Your task to perform on an android device: Open Wikipedia Image 0: 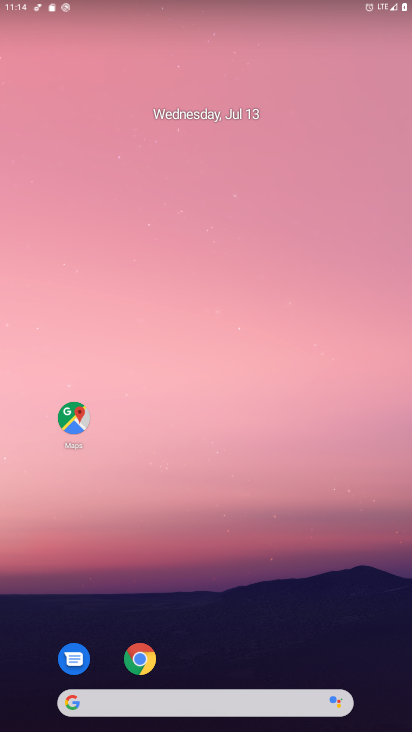
Step 0: drag from (221, 665) to (203, 70)
Your task to perform on an android device: Open Wikipedia Image 1: 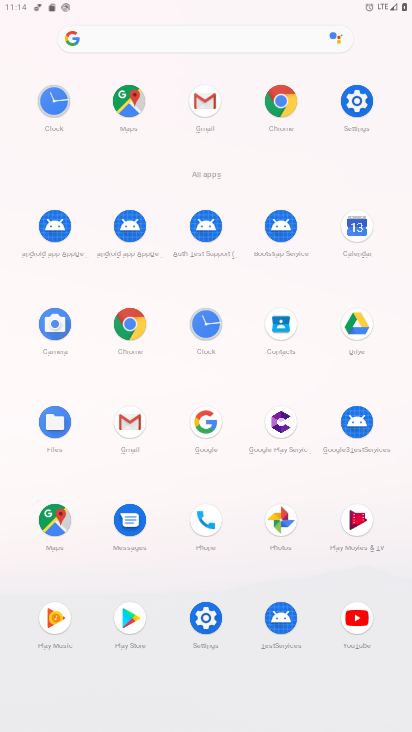
Step 1: click (278, 96)
Your task to perform on an android device: Open Wikipedia Image 2: 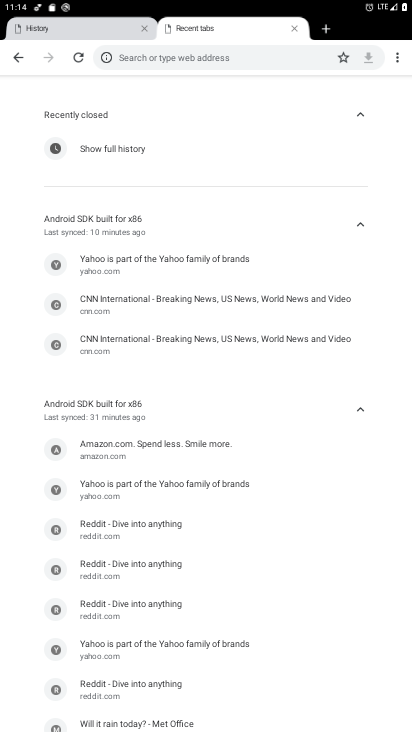
Step 2: click (327, 28)
Your task to perform on an android device: Open Wikipedia Image 3: 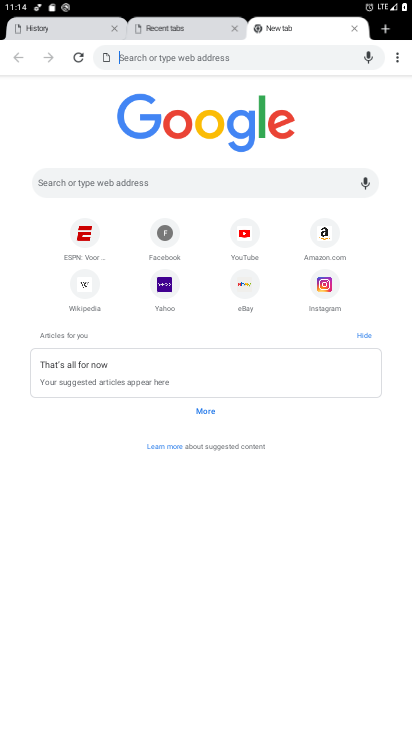
Step 3: click (79, 278)
Your task to perform on an android device: Open Wikipedia Image 4: 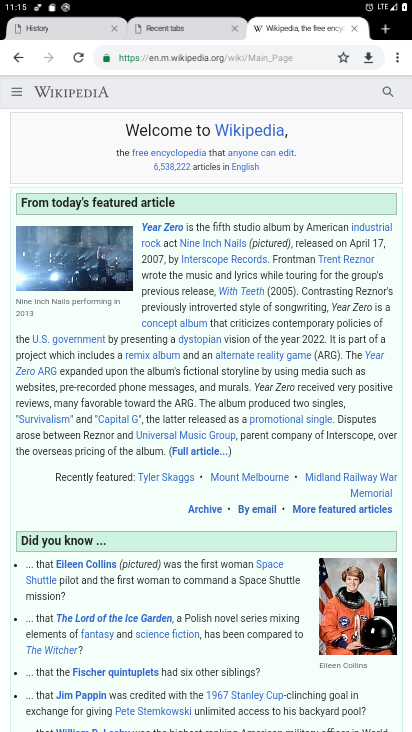
Step 4: task complete